Your task to perform on an android device: toggle sleep mode Image 0: 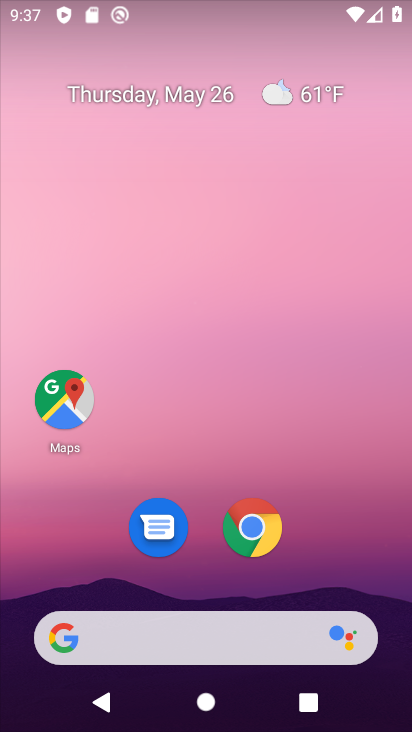
Step 0: drag from (197, 577) to (243, 2)
Your task to perform on an android device: toggle sleep mode Image 1: 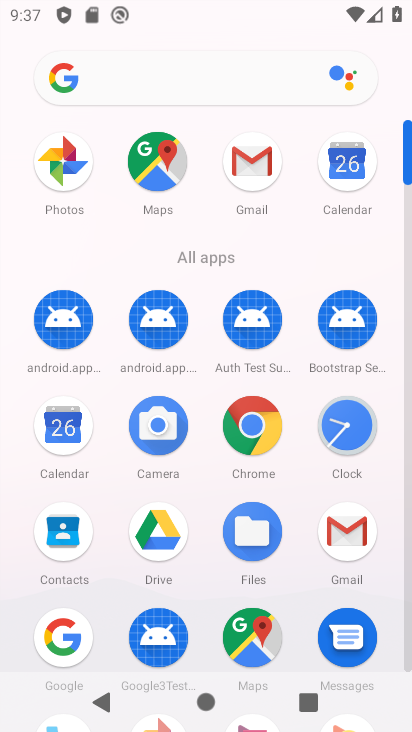
Step 1: drag from (203, 593) to (215, 9)
Your task to perform on an android device: toggle sleep mode Image 2: 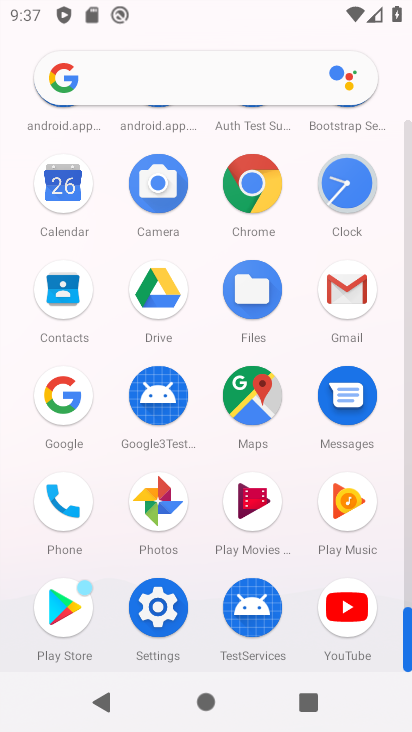
Step 2: click (166, 619)
Your task to perform on an android device: toggle sleep mode Image 3: 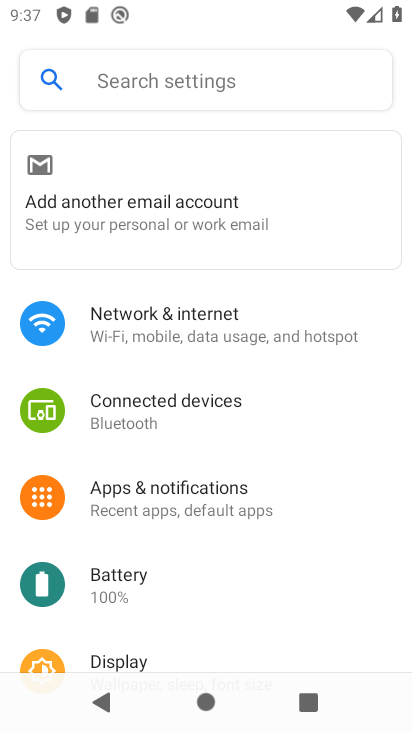
Step 3: click (151, 76)
Your task to perform on an android device: toggle sleep mode Image 4: 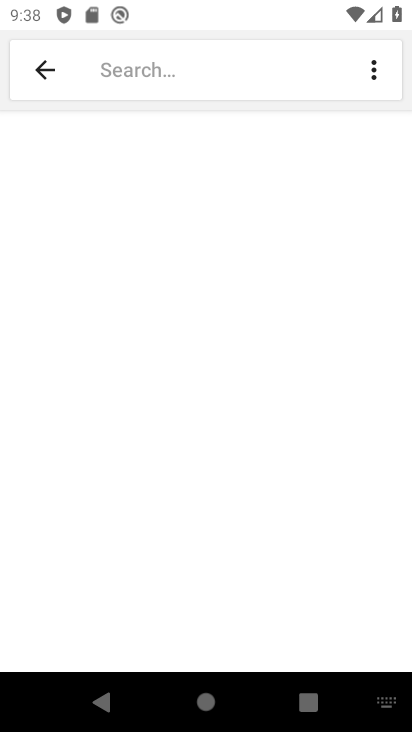
Step 4: type "sleep mode"
Your task to perform on an android device: toggle sleep mode Image 5: 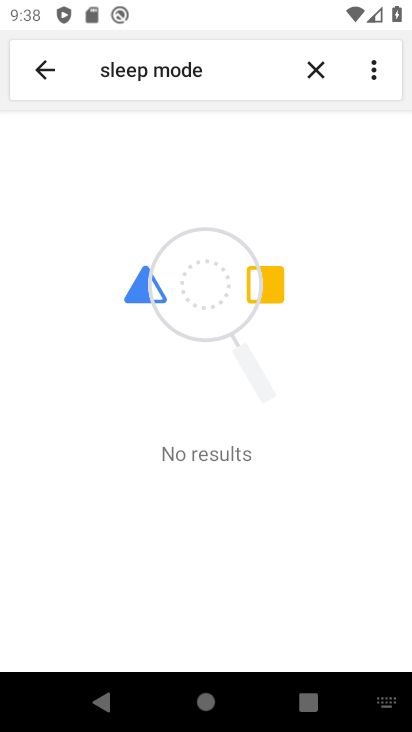
Step 5: task complete